Your task to perform on an android device: add a contact in the contacts app Image 0: 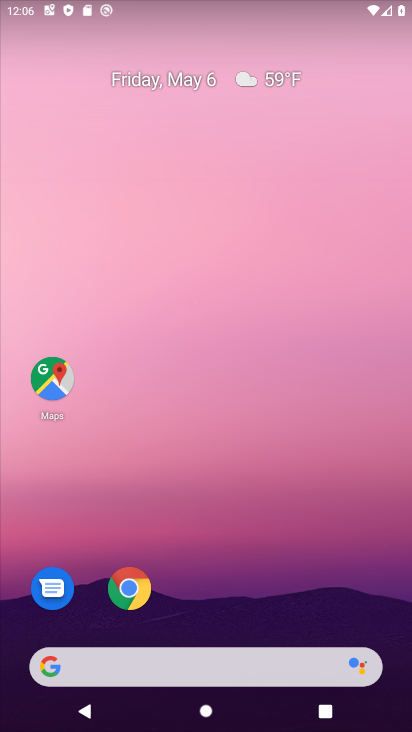
Step 0: drag from (291, 564) to (324, 21)
Your task to perform on an android device: add a contact in the contacts app Image 1: 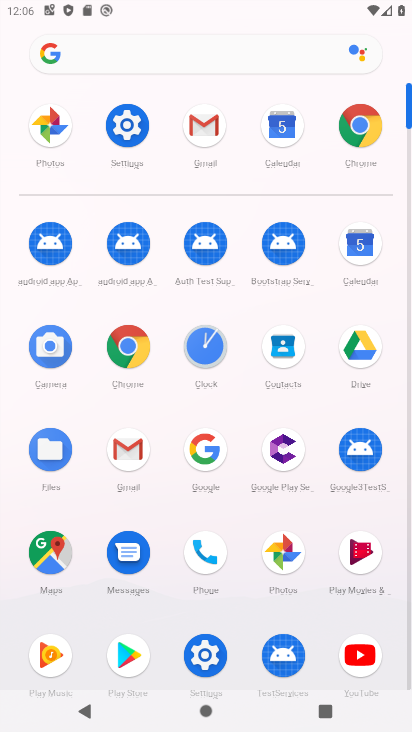
Step 1: click (278, 343)
Your task to perform on an android device: add a contact in the contacts app Image 2: 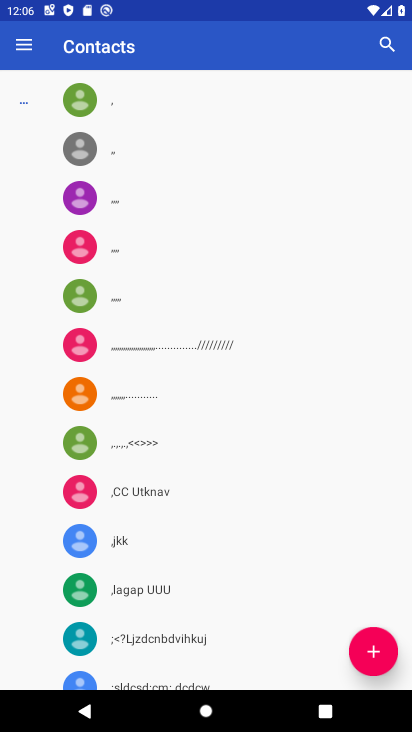
Step 2: click (366, 650)
Your task to perform on an android device: add a contact in the contacts app Image 3: 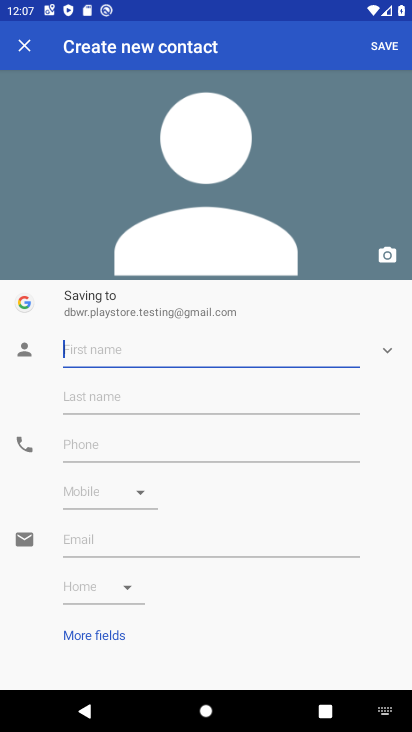
Step 3: type "Ravindran"
Your task to perform on an android device: add a contact in the contacts app Image 4: 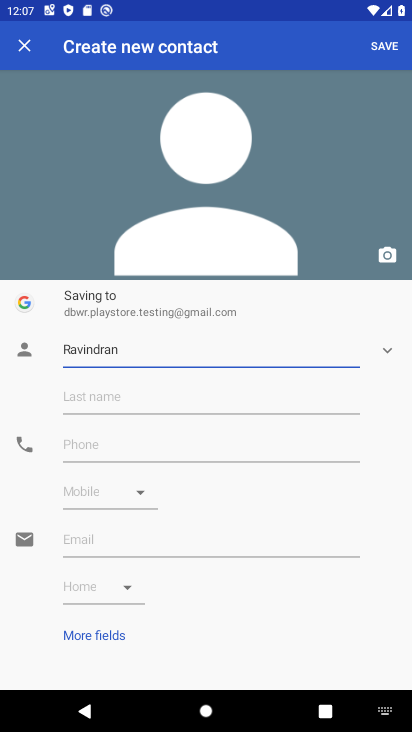
Step 4: click (293, 444)
Your task to perform on an android device: add a contact in the contacts app Image 5: 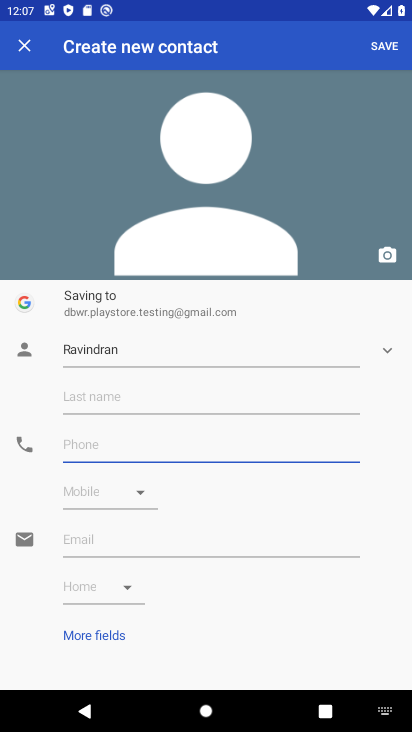
Step 5: type "66676667666"
Your task to perform on an android device: add a contact in the contacts app Image 6: 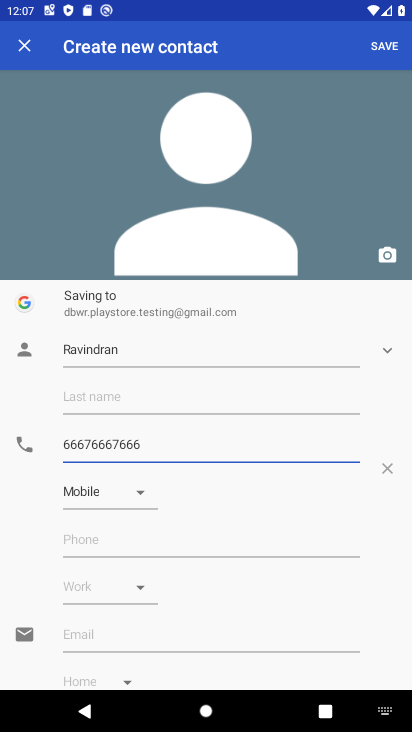
Step 6: click (385, 41)
Your task to perform on an android device: add a contact in the contacts app Image 7: 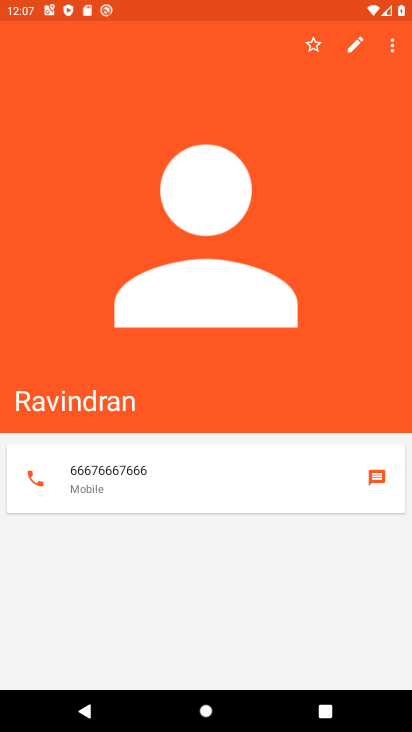
Step 7: task complete